Your task to perform on an android device: Open Chrome and go to the settings page Image 0: 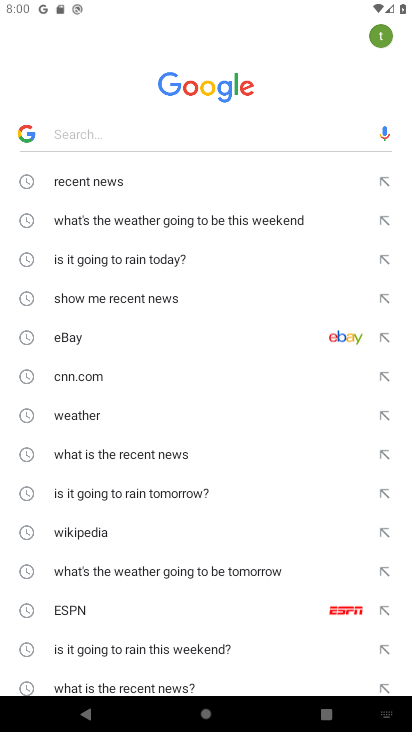
Step 0: press home button
Your task to perform on an android device: Open Chrome and go to the settings page Image 1: 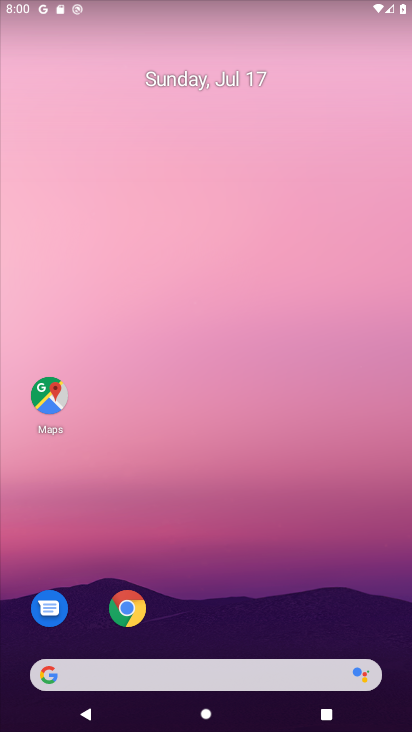
Step 1: click (132, 606)
Your task to perform on an android device: Open Chrome and go to the settings page Image 2: 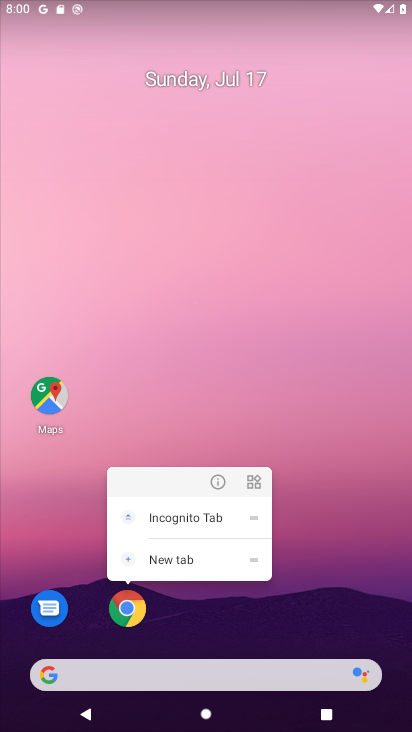
Step 2: click (132, 606)
Your task to perform on an android device: Open Chrome and go to the settings page Image 3: 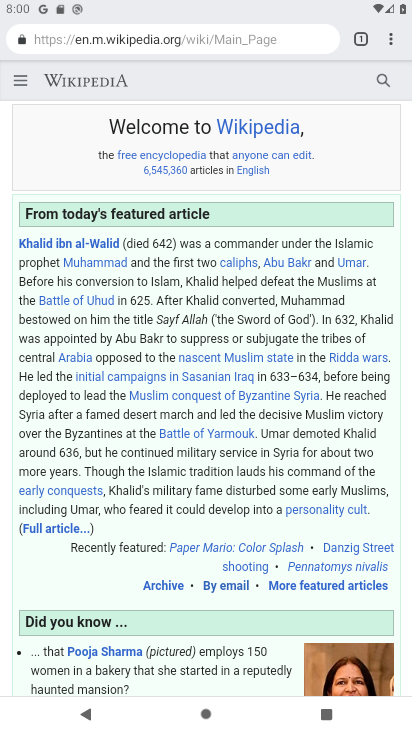
Step 3: click (388, 30)
Your task to perform on an android device: Open Chrome and go to the settings page Image 4: 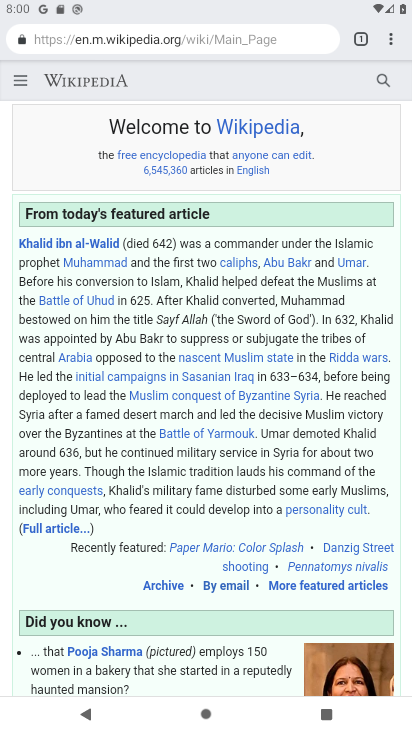
Step 4: click (390, 38)
Your task to perform on an android device: Open Chrome and go to the settings page Image 5: 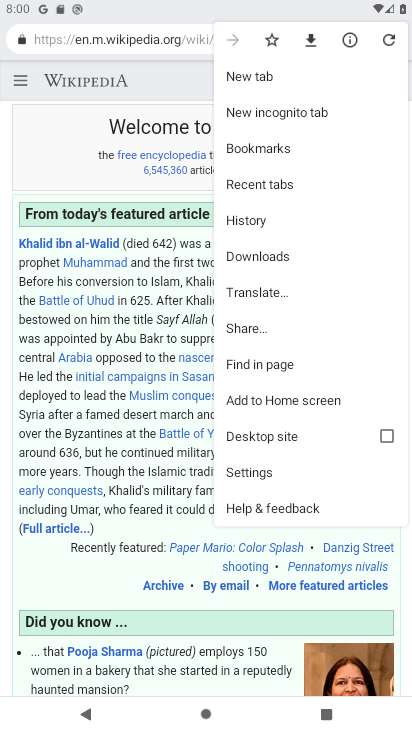
Step 5: click (268, 469)
Your task to perform on an android device: Open Chrome and go to the settings page Image 6: 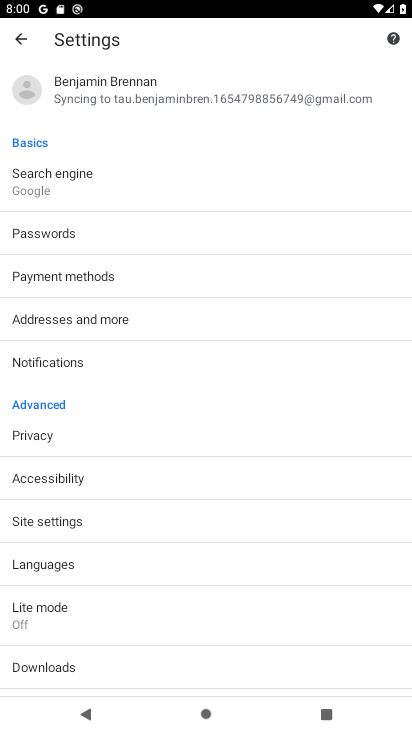
Step 6: task complete